Your task to perform on an android device: Show me productivity apps on the Play Store Image 0: 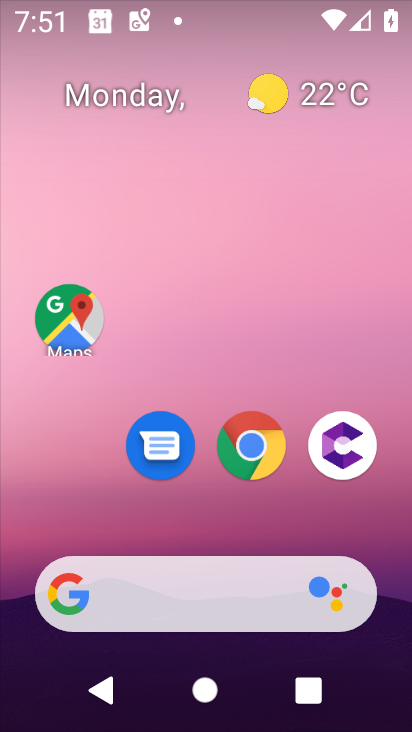
Step 0: press home button
Your task to perform on an android device: Show me productivity apps on the Play Store Image 1: 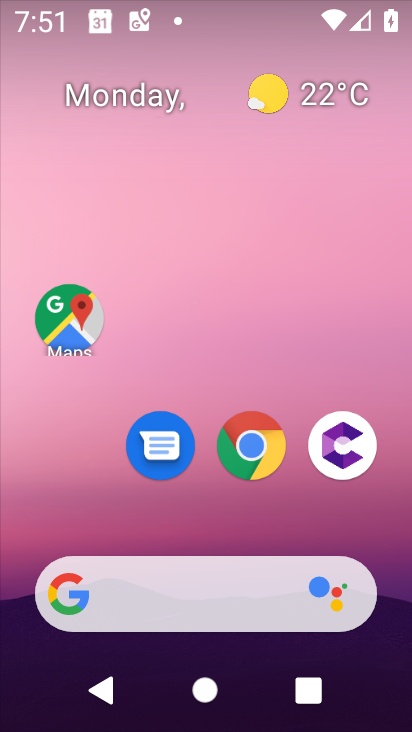
Step 1: drag from (224, 549) to (154, 1)
Your task to perform on an android device: Show me productivity apps on the Play Store Image 2: 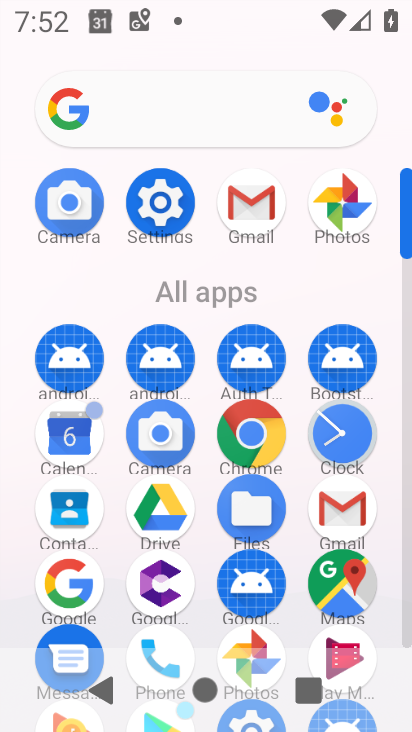
Step 2: drag from (24, 561) to (36, 86)
Your task to perform on an android device: Show me productivity apps on the Play Store Image 3: 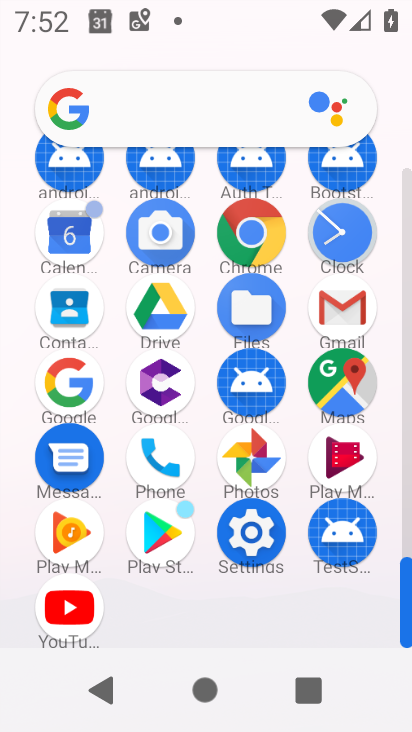
Step 3: click (159, 541)
Your task to perform on an android device: Show me productivity apps on the Play Store Image 4: 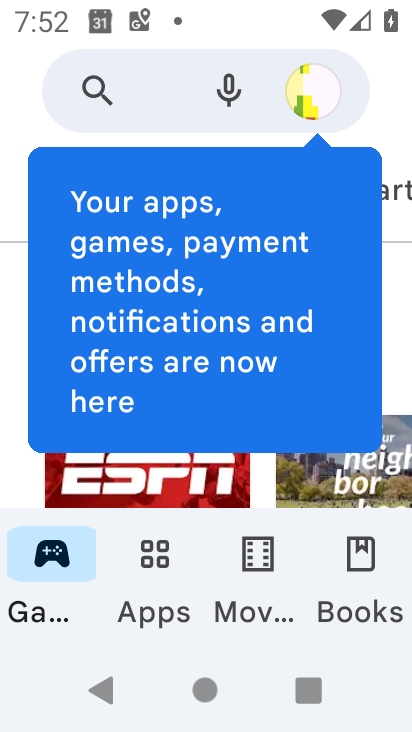
Step 4: click (148, 569)
Your task to perform on an android device: Show me productivity apps on the Play Store Image 5: 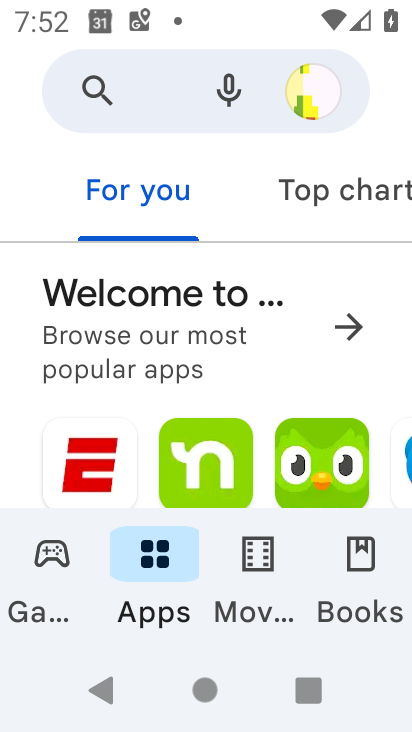
Step 5: drag from (365, 227) to (18, 195)
Your task to perform on an android device: Show me productivity apps on the Play Store Image 6: 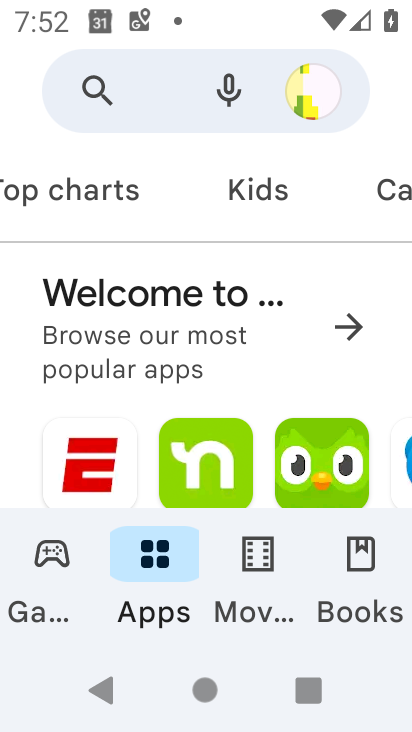
Step 6: drag from (398, 225) to (200, 252)
Your task to perform on an android device: Show me productivity apps on the Play Store Image 7: 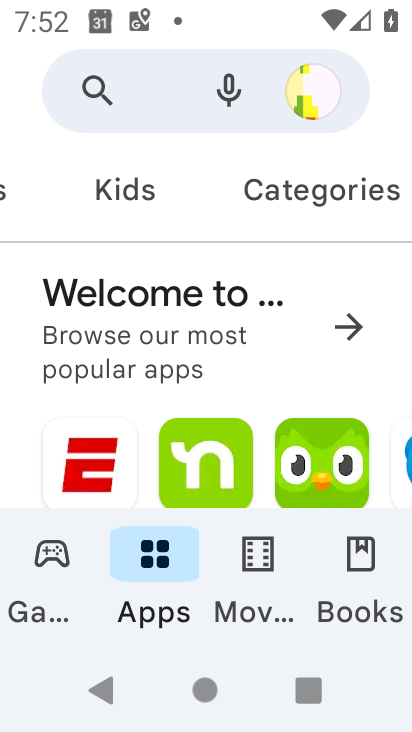
Step 7: click (331, 197)
Your task to perform on an android device: Show me productivity apps on the Play Store Image 8: 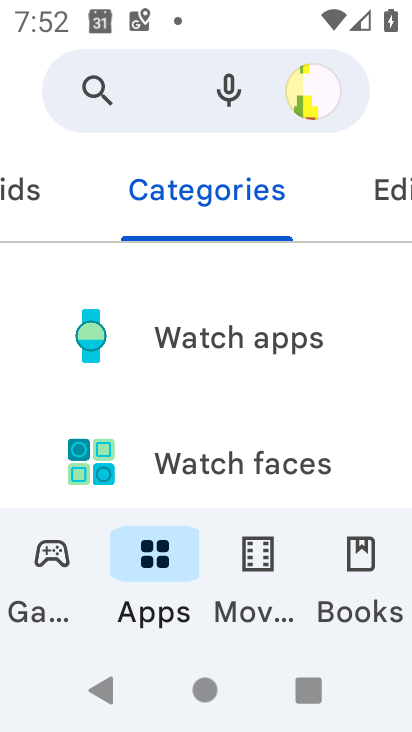
Step 8: drag from (357, 391) to (334, 20)
Your task to perform on an android device: Show me productivity apps on the Play Store Image 9: 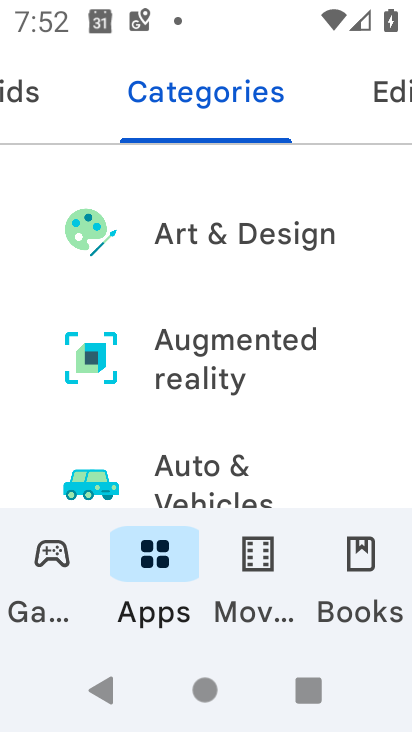
Step 9: drag from (358, 406) to (332, 125)
Your task to perform on an android device: Show me productivity apps on the Play Store Image 10: 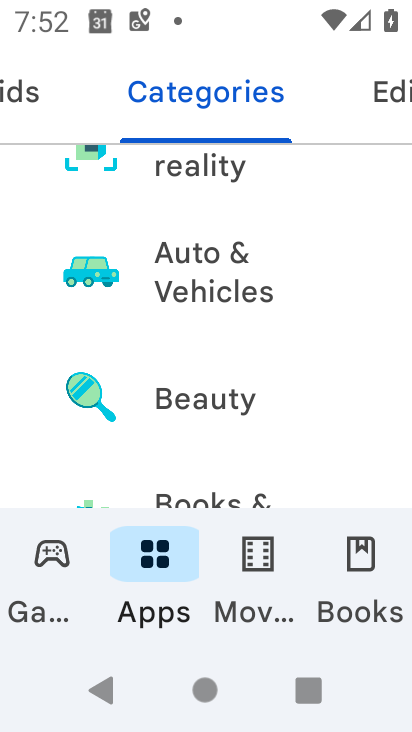
Step 10: drag from (363, 478) to (384, 5)
Your task to perform on an android device: Show me productivity apps on the Play Store Image 11: 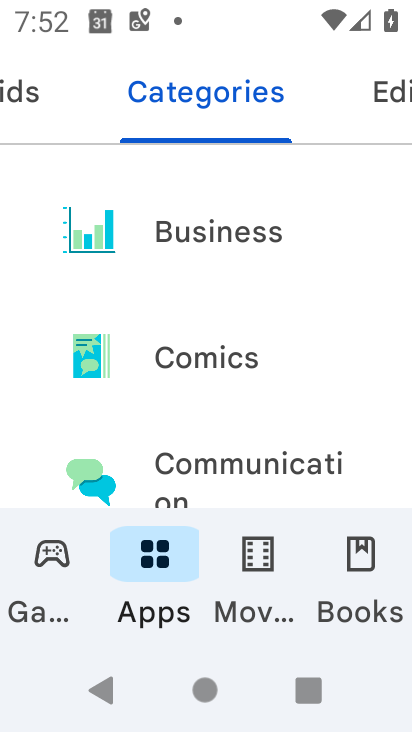
Step 11: drag from (375, 423) to (370, 0)
Your task to perform on an android device: Show me productivity apps on the Play Store Image 12: 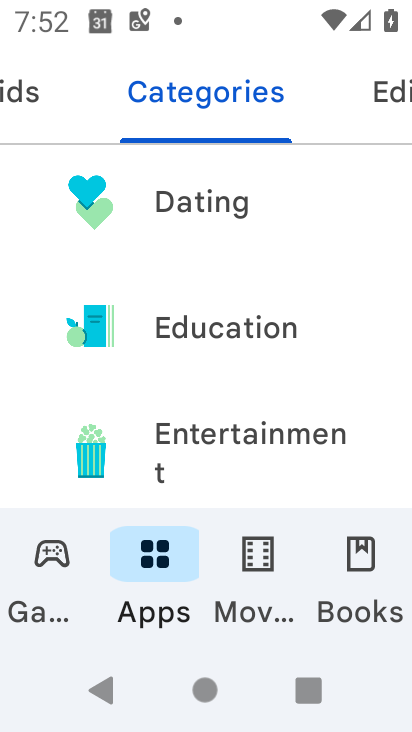
Step 12: drag from (366, 379) to (351, 43)
Your task to perform on an android device: Show me productivity apps on the Play Store Image 13: 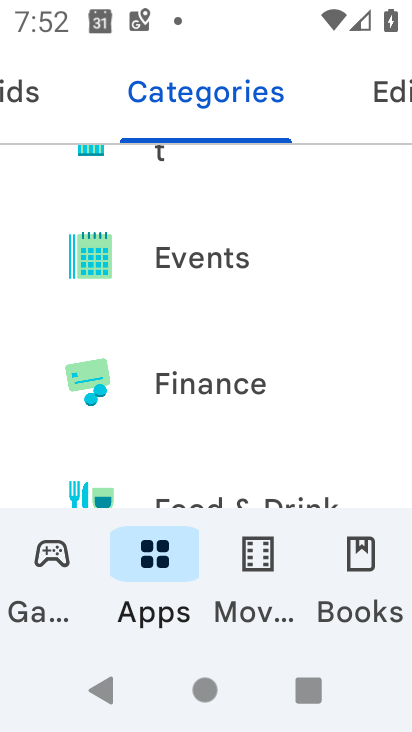
Step 13: drag from (363, 419) to (392, 8)
Your task to perform on an android device: Show me productivity apps on the Play Store Image 14: 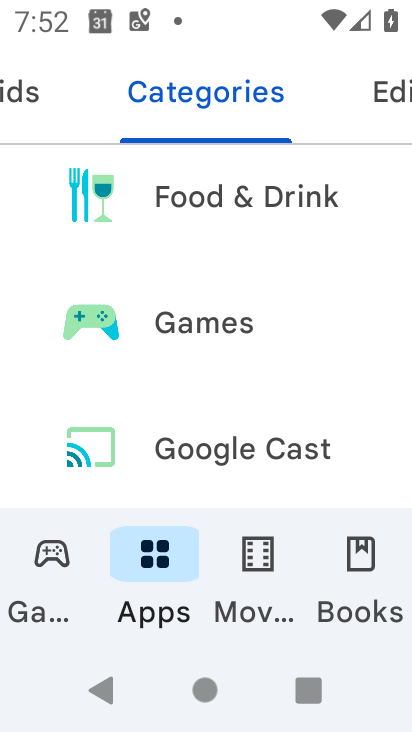
Step 14: drag from (304, 342) to (340, 0)
Your task to perform on an android device: Show me productivity apps on the Play Store Image 15: 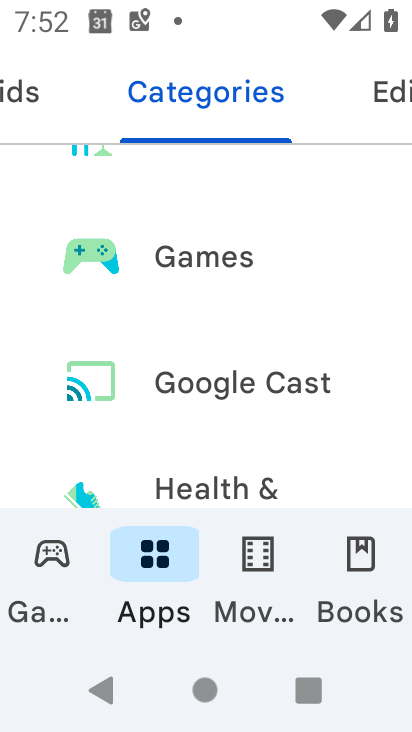
Step 15: drag from (321, 447) to (327, 29)
Your task to perform on an android device: Show me productivity apps on the Play Store Image 16: 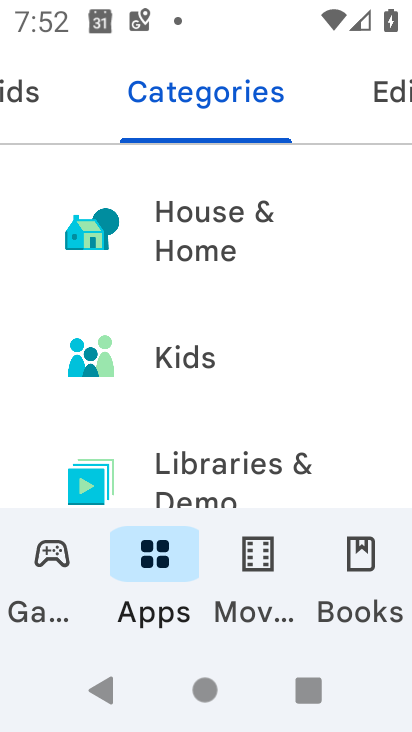
Step 16: drag from (308, 433) to (311, 27)
Your task to perform on an android device: Show me productivity apps on the Play Store Image 17: 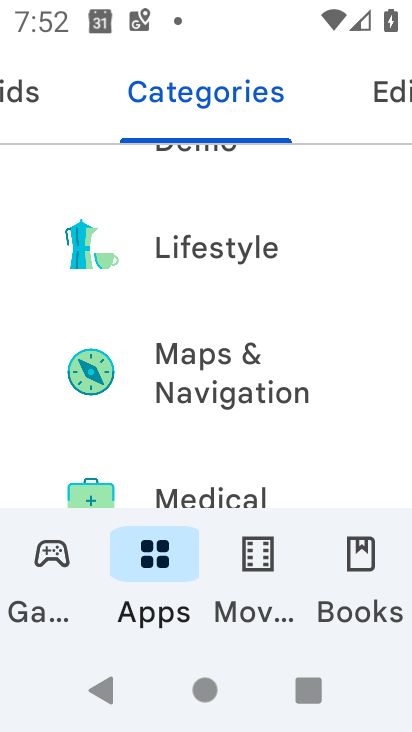
Step 17: drag from (340, 457) to (341, 1)
Your task to perform on an android device: Show me productivity apps on the Play Store Image 18: 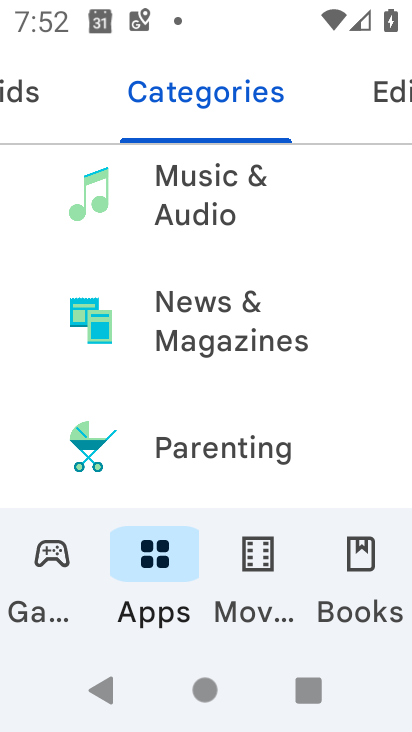
Step 18: drag from (344, 465) to (337, 50)
Your task to perform on an android device: Show me productivity apps on the Play Store Image 19: 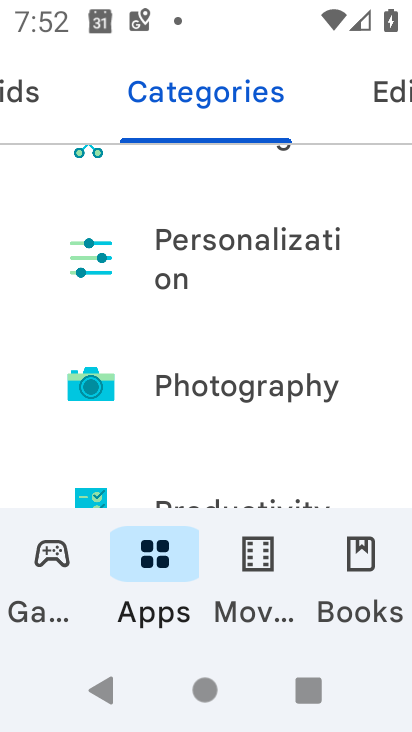
Step 19: drag from (330, 454) to (329, 157)
Your task to perform on an android device: Show me productivity apps on the Play Store Image 20: 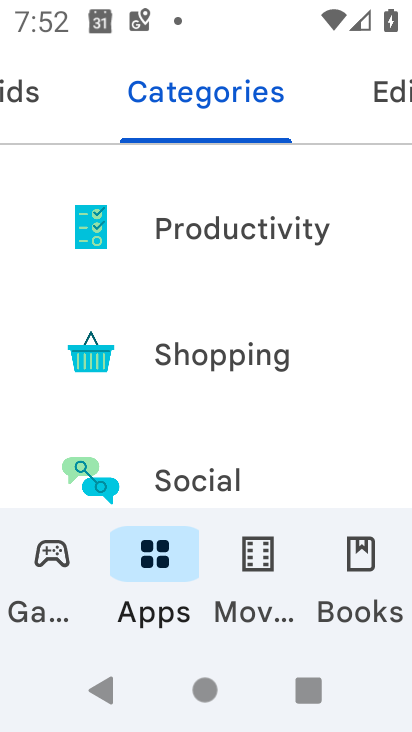
Step 20: click (244, 235)
Your task to perform on an android device: Show me productivity apps on the Play Store Image 21: 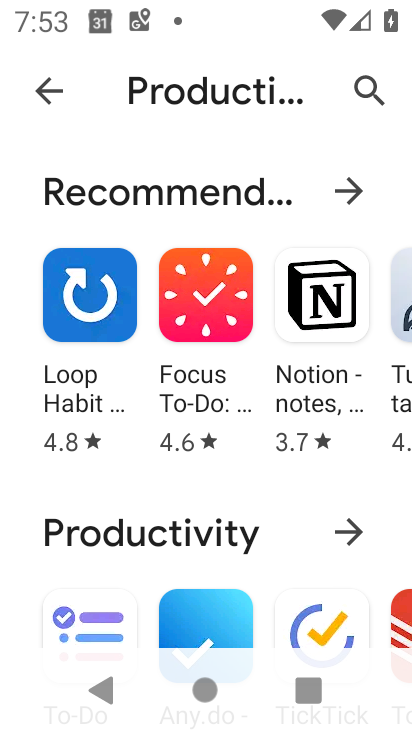
Step 21: task complete